Your task to perform on an android device: turn off improve location accuracy Image 0: 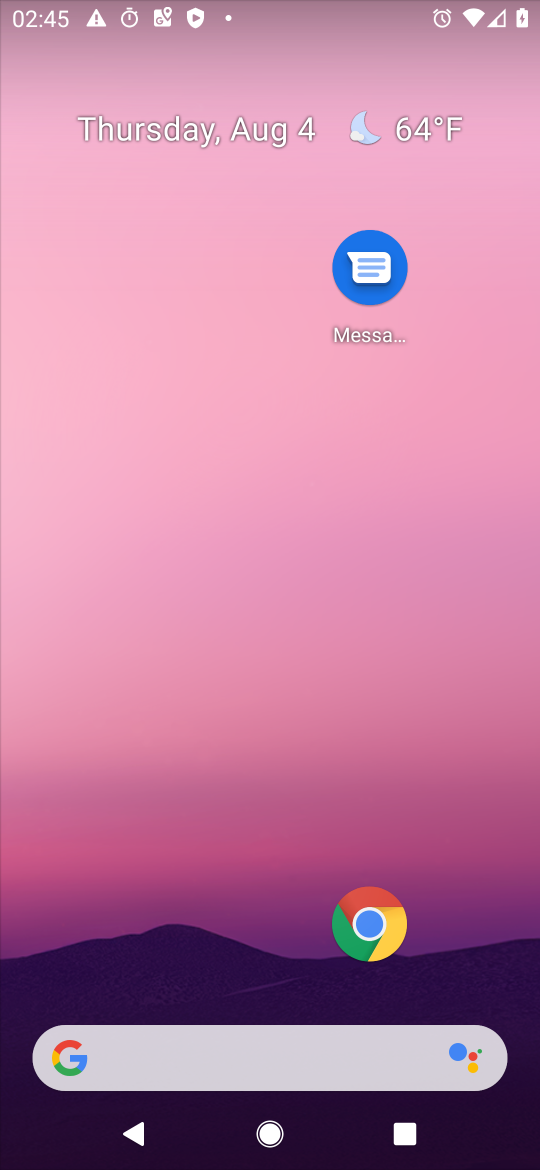
Step 0: drag from (406, 312) to (475, 63)
Your task to perform on an android device: turn off improve location accuracy Image 1: 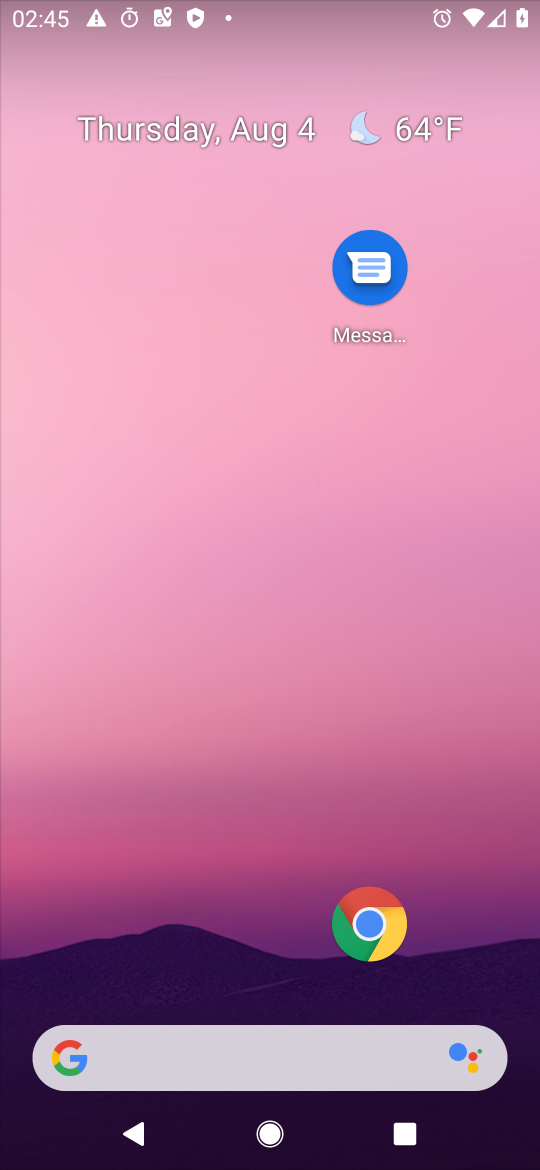
Step 1: drag from (36, 1122) to (308, 263)
Your task to perform on an android device: turn off improve location accuracy Image 2: 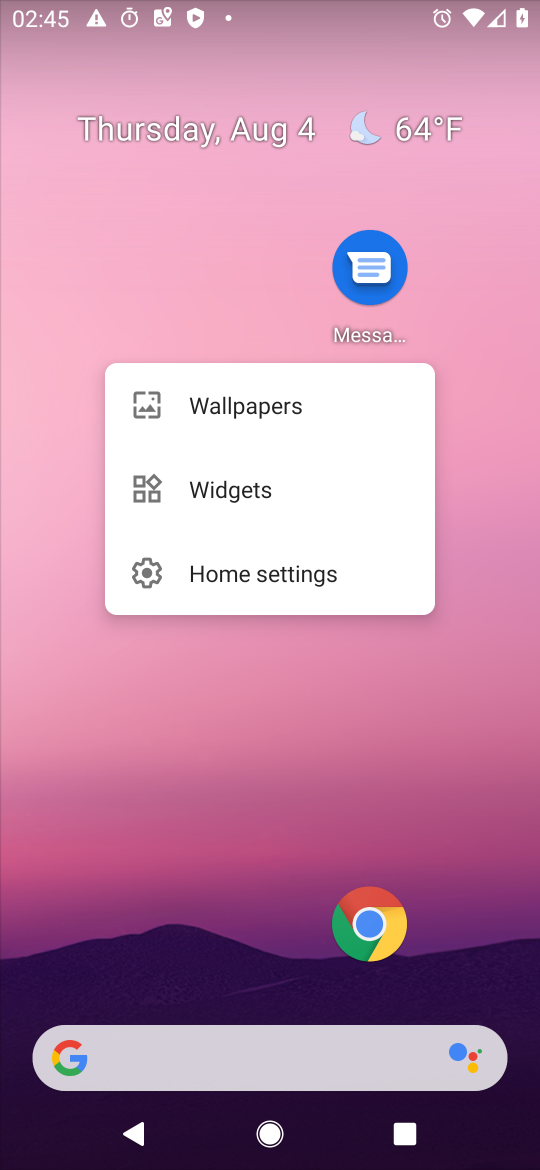
Step 2: drag from (198, 303) to (254, 41)
Your task to perform on an android device: turn off improve location accuracy Image 3: 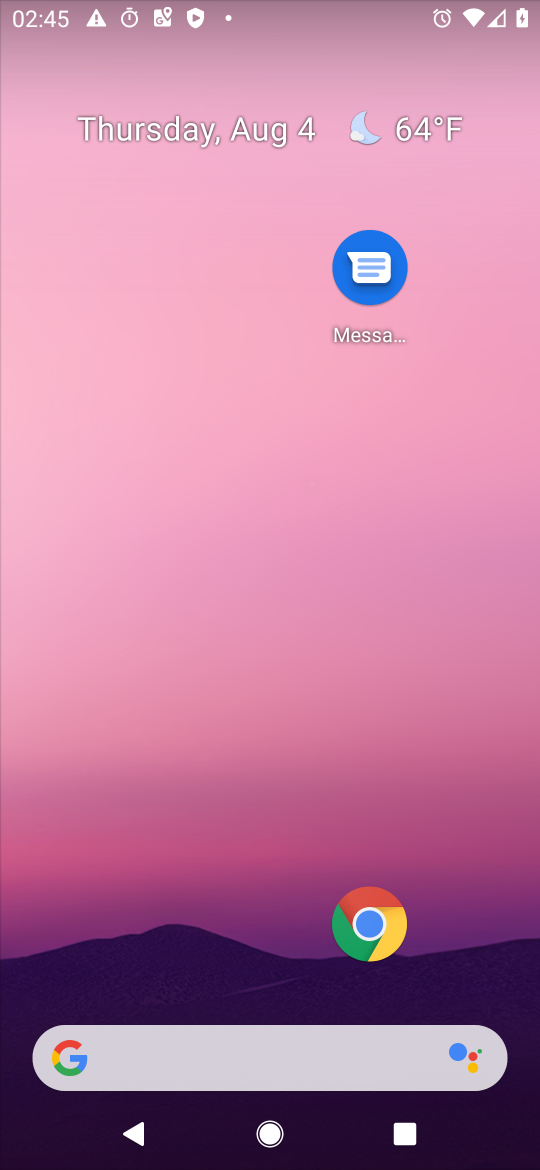
Step 3: drag from (74, 1002) to (241, 73)
Your task to perform on an android device: turn off improve location accuracy Image 4: 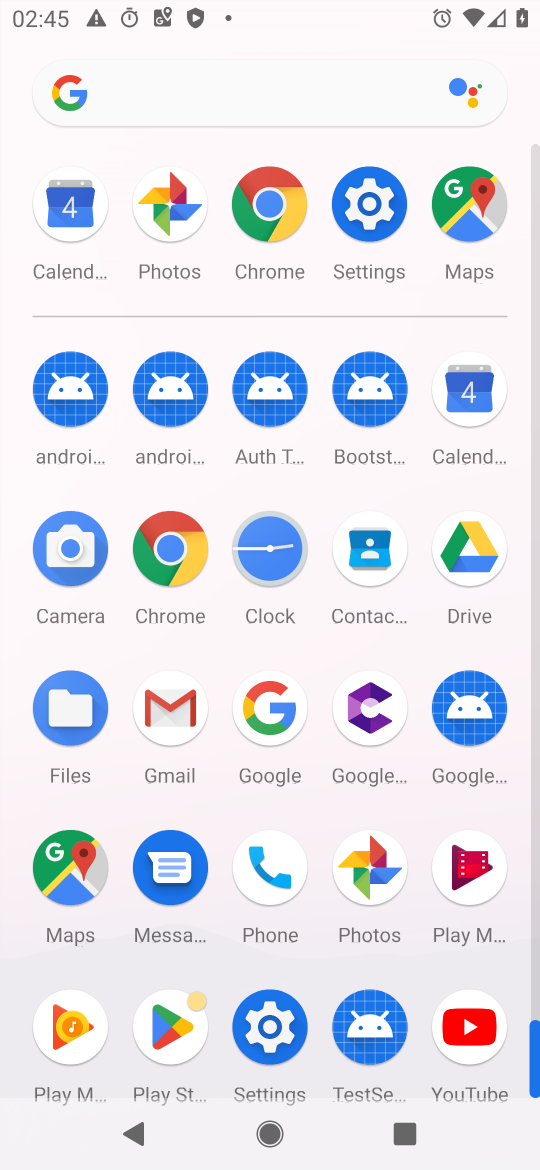
Step 4: click (267, 1035)
Your task to perform on an android device: turn off improve location accuracy Image 5: 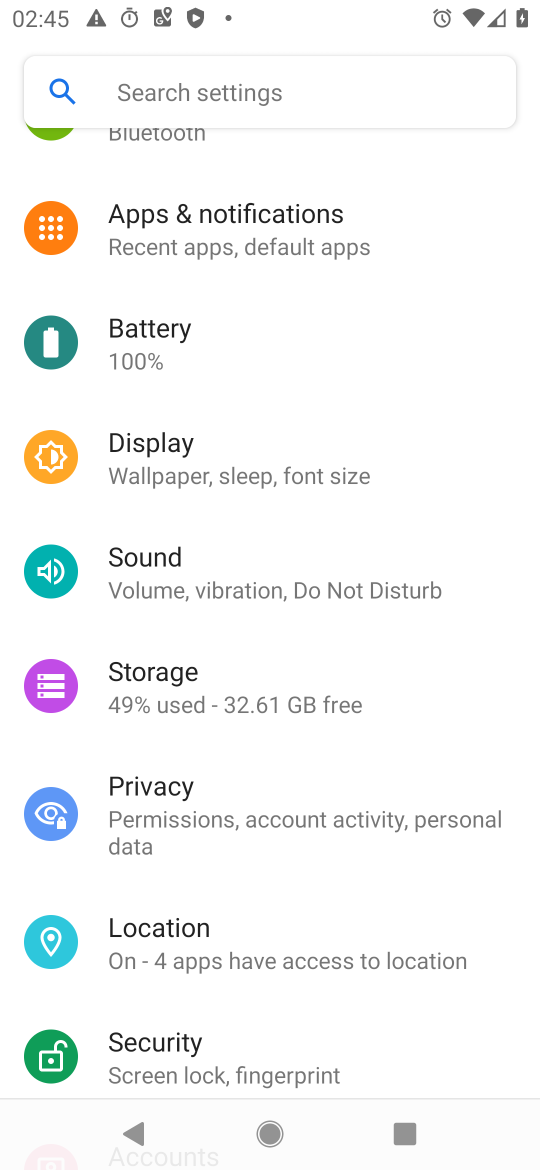
Step 5: click (184, 954)
Your task to perform on an android device: turn off improve location accuracy Image 6: 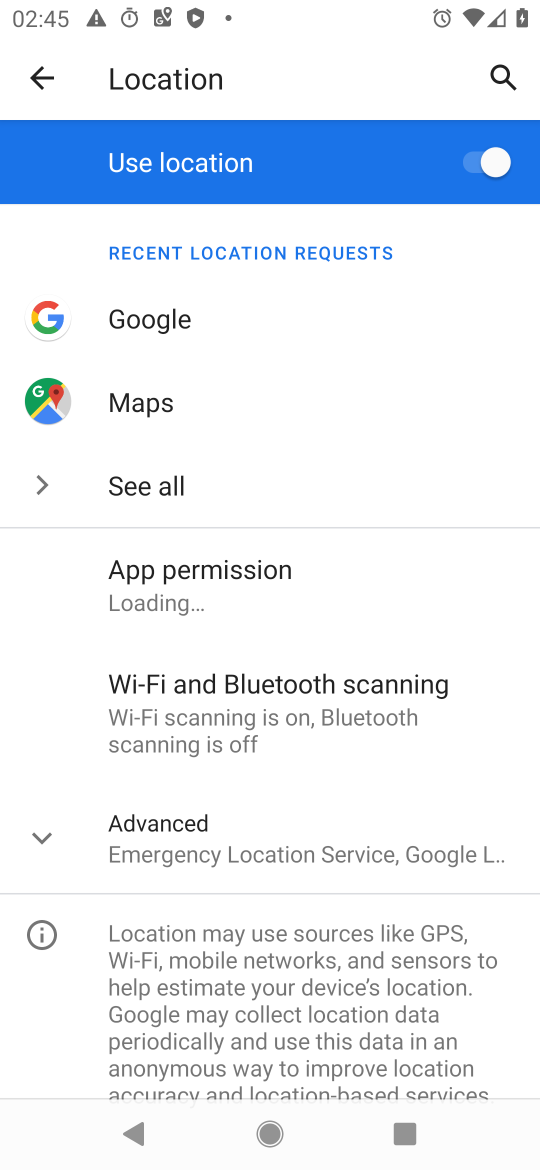
Step 6: click (177, 840)
Your task to perform on an android device: turn off improve location accuracy Image 7: 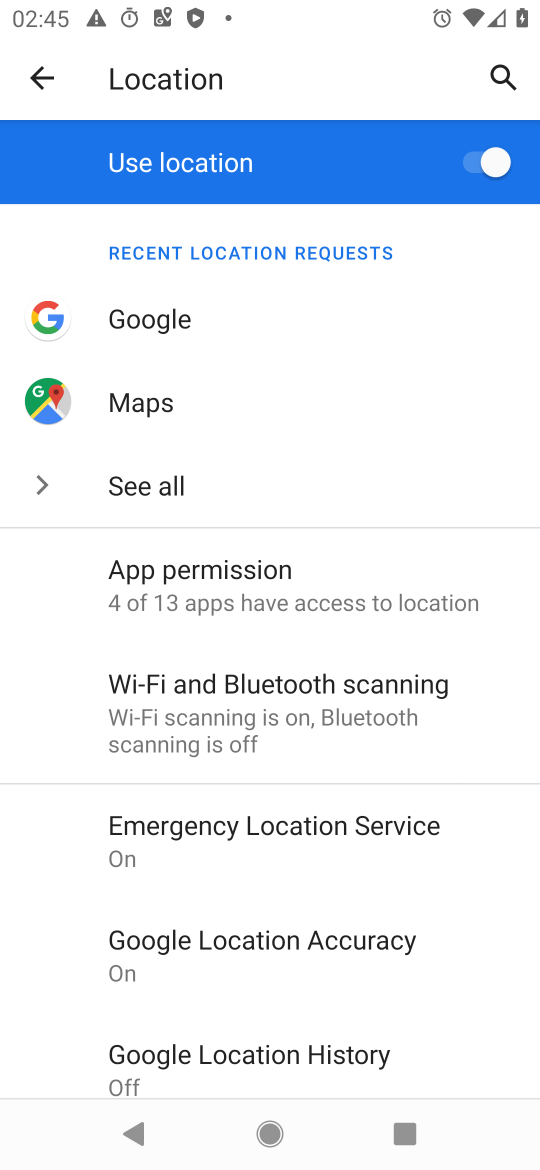
Step 7: click (247, 946)
Your task to perform on an android device: turn off improve location accuracy Image 8: 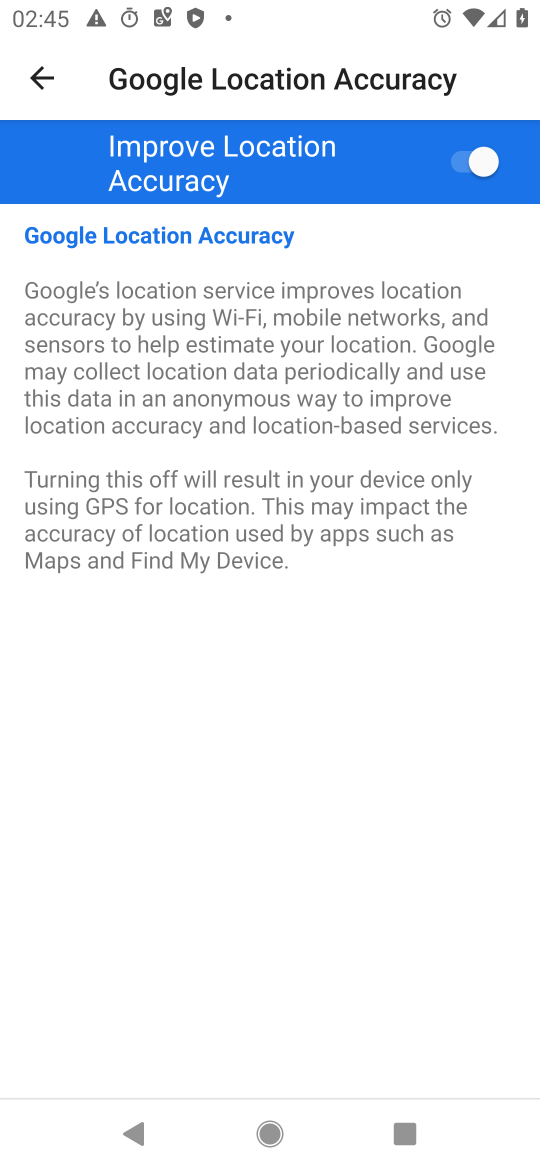
Step 8: click (470, 155)
Your task to perform on an android device: turn off improve location accuracy Image 9: 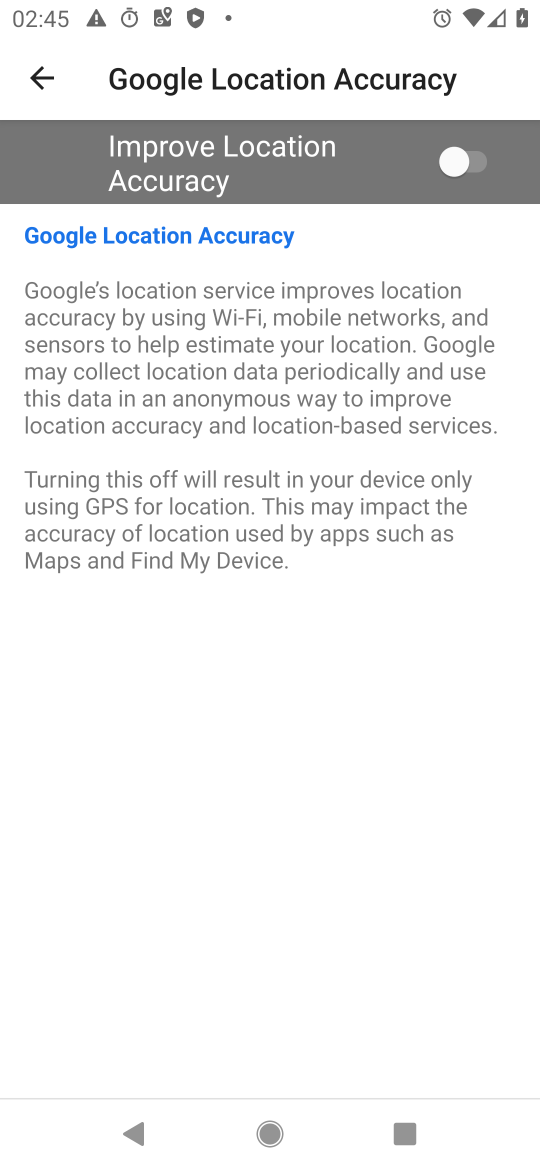
Step 9: task complete